Your task to perform on an android device: turn off airplane mode Image 0: 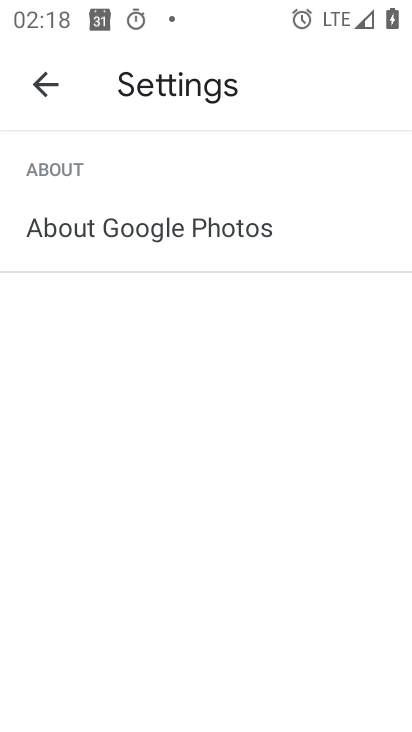
Step 0: press home button
Your task to perform on an android device: turn off airplane mode Image 1: 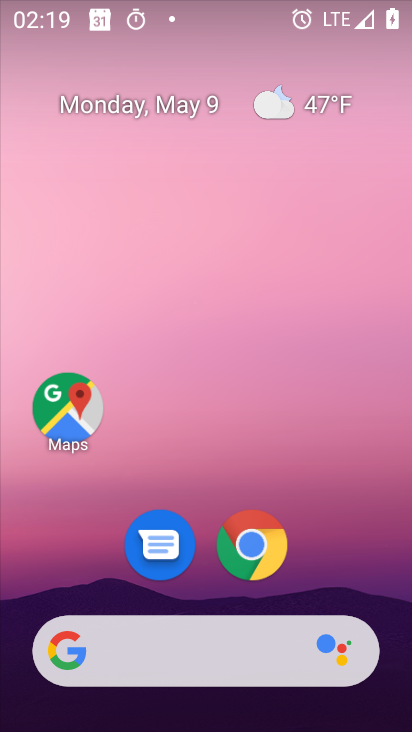
Step 1: drag from (304, 578) to (348, 45)
Your task to perform on an android device: turn off airplane mode Image 2: 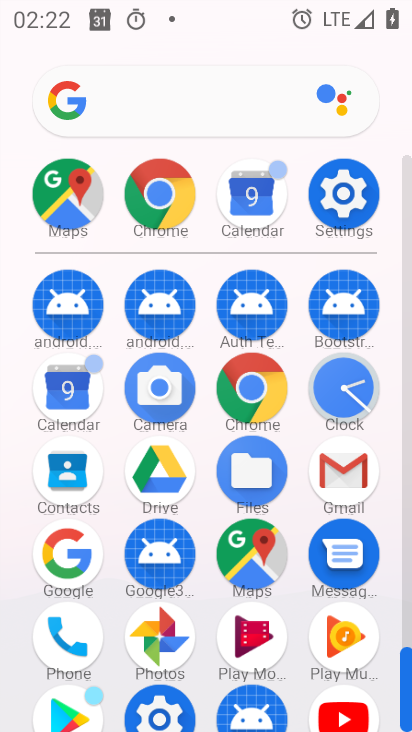
Step 2: click (336, 209)
Your task to perform on an android device: turn off airplane mode Image 3: 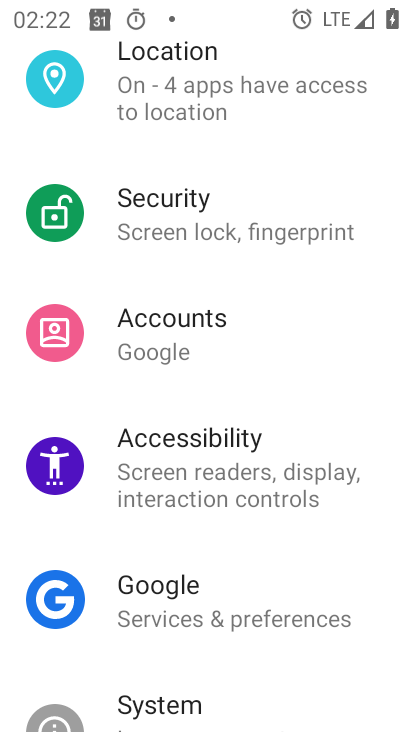
Step 3: drag from (232, 159) to (216, 690)
Your task to perform on an android device: turn off airplane mode Image 4: 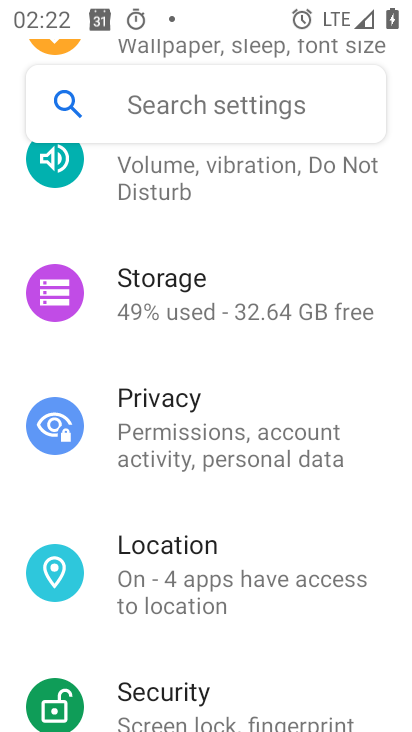
Step 4: drag from (257, 250) to (285, 676)
Your task to perform on an android device: turn off airplane mode Image 5: 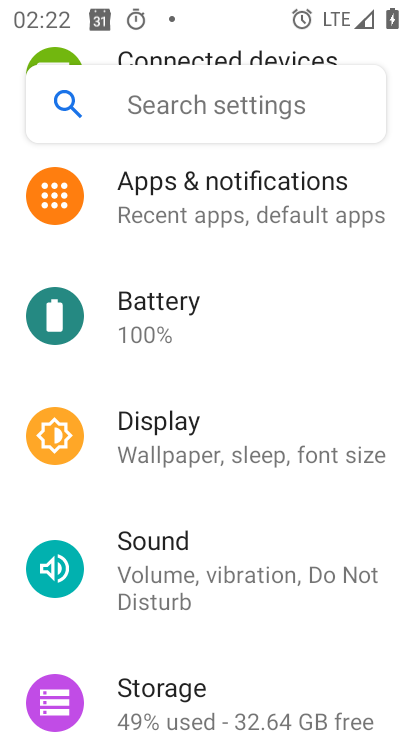
Step 5: drag from (244, 253) to (273, 717)
Your task to perform on an android device: turn off airplane mode Image 6: 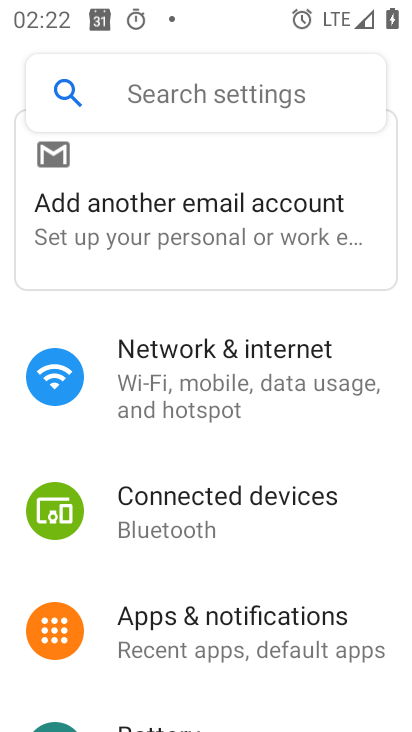
Step 6: click (282, 349)
Your task to perform on an android device: turn off airplane mode Image 7: 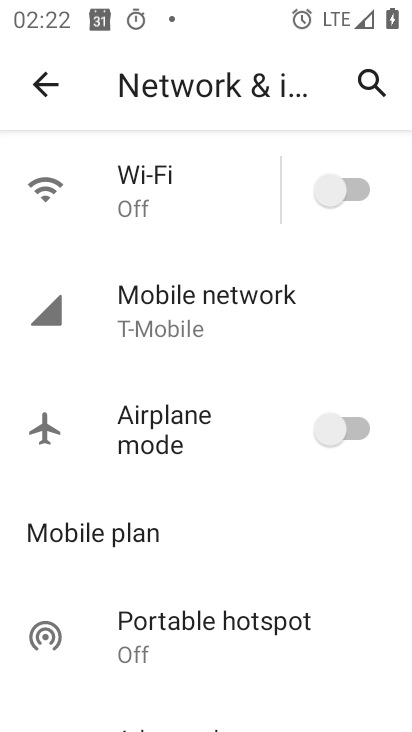
Step 7: task complete